Your task to perform on an android device: turn off wifi Image 0: 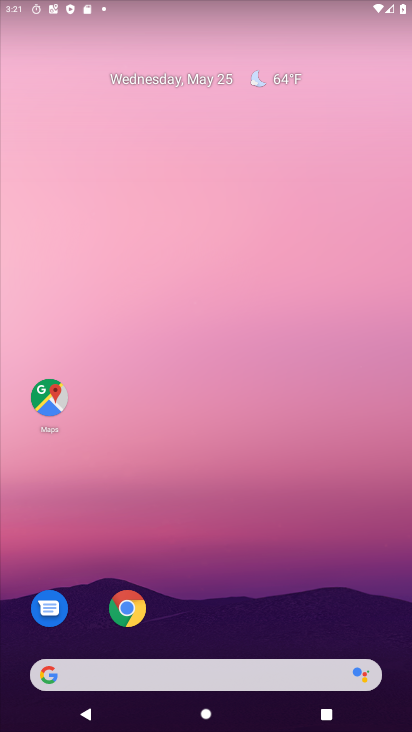
Step 0: drag from (251, 580) to (255, 152)
Your task to perform on an android device: turn off wifi Image 1: 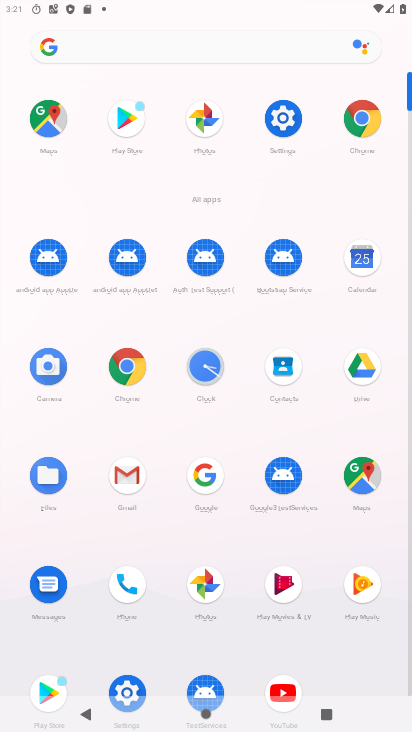
Step 1: click (278, 120)
Your task to perform on an android device: turn off wifi Image 2: 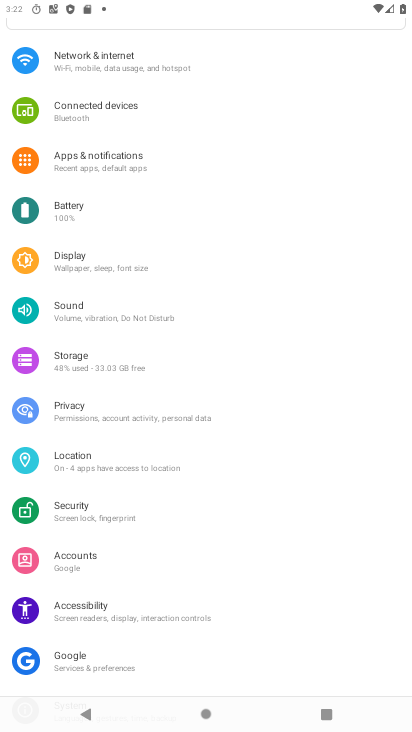
Step 2: drag from (74, 124) to (131, 570)
Your task to perform on an android device: turn off wifi Image 3: 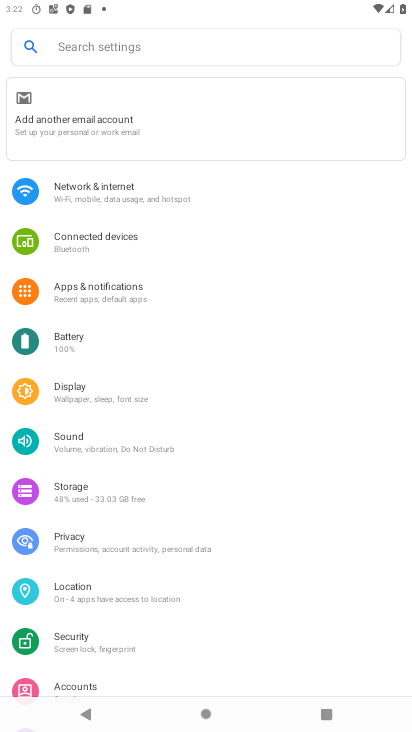
Step 3: click (133, 202)
Your task to perform on an android device: turn off wifi Image 4: 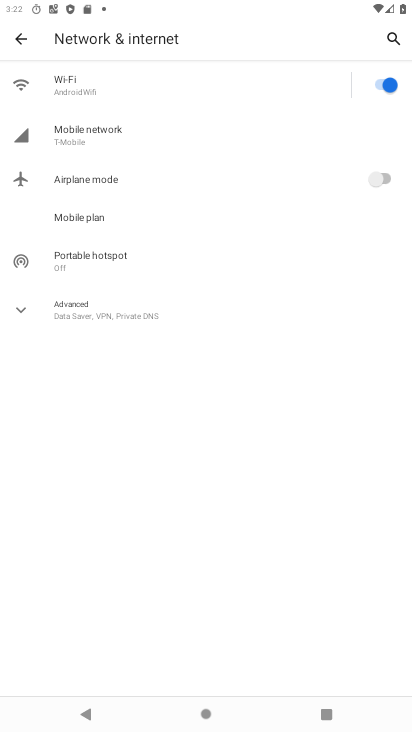
Step 4: click (373, 75)
Your task to perform on an android device: turn off wifi Image 5: 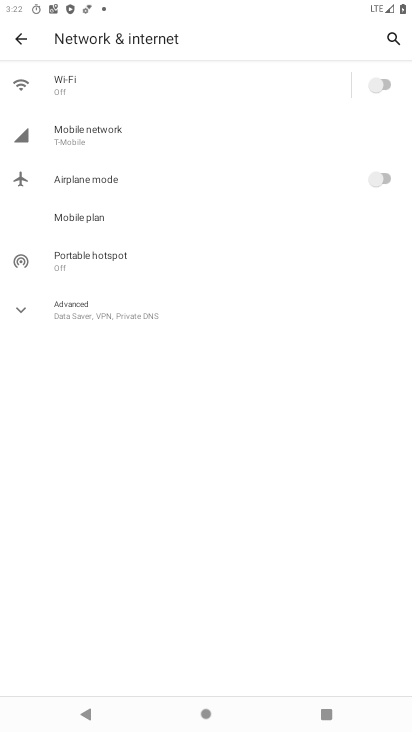
Step 5: task complete